Your task to perform on an android device: turn on javascript in the chrome app Image 0: 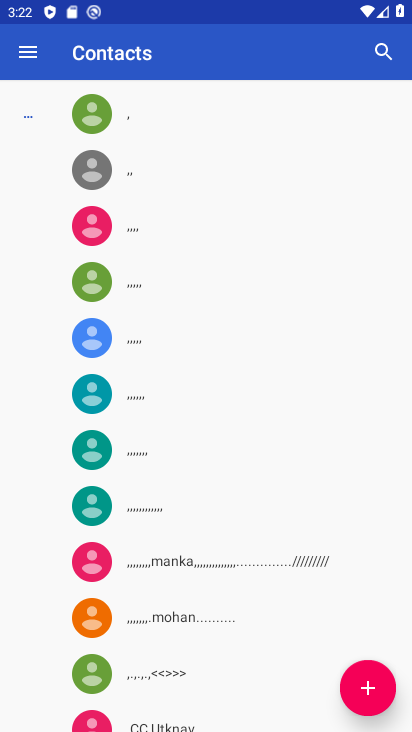
Step 0: press home button
Your task to perform on an android device: turn on javascript in the chrome app Image 1: 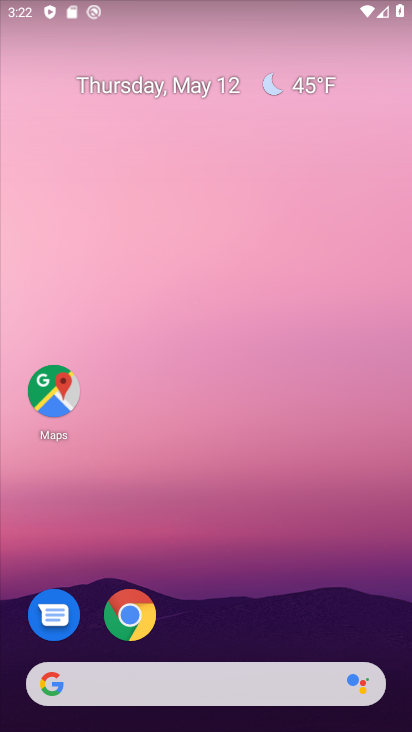
Step 1: click (116, 608)
Your task to perform on an android device: turn on javascript in the chrome app Image 2: 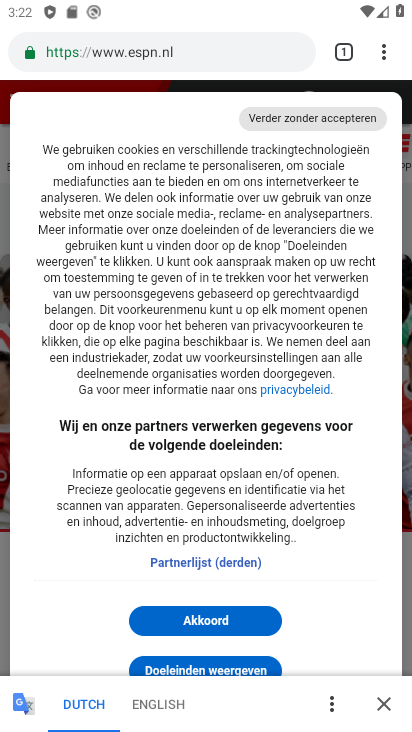
Step 2: click (383, 45)
Your task to perform on an android device: turn on javascript in the chrome app Image 3: 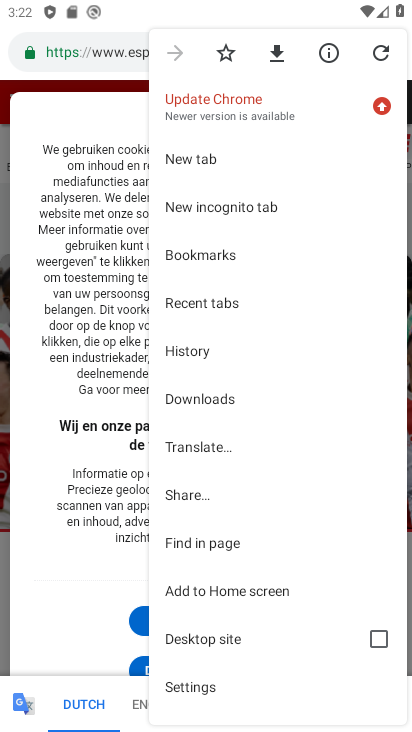
Step 3: click (192, 689)
Your task to perform on an android device: turn on javascript in the chrome app Image 4: 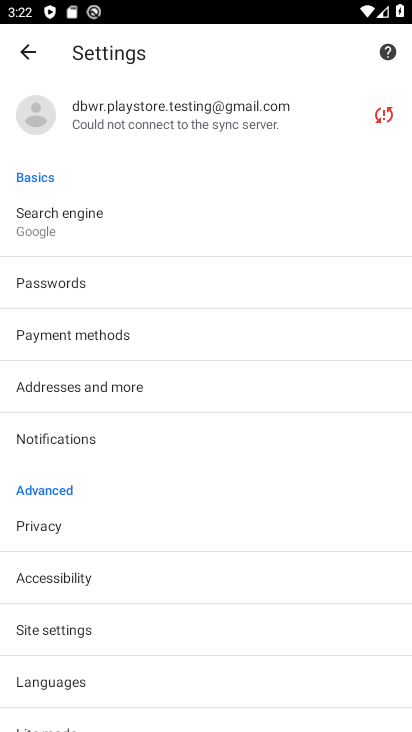
Step 4: drag from (196, 586) to (158, 269)
Your task to perform on an android device: turn on javascript in the chrome app Image 5: 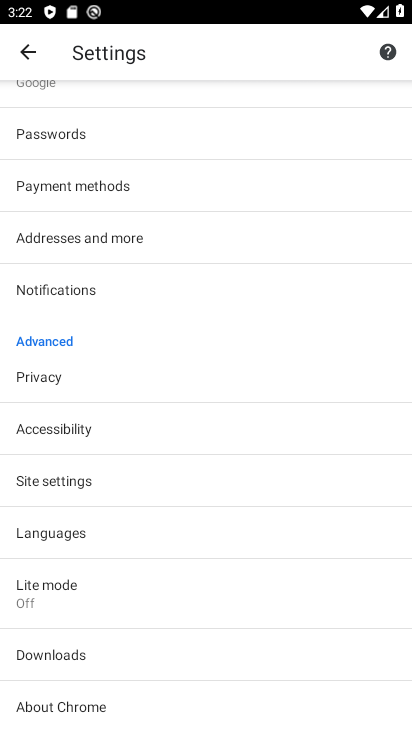
Step 5: click (126, 480)
Your task to perform on an android device: turn on javascript in the chrome app Image 6: 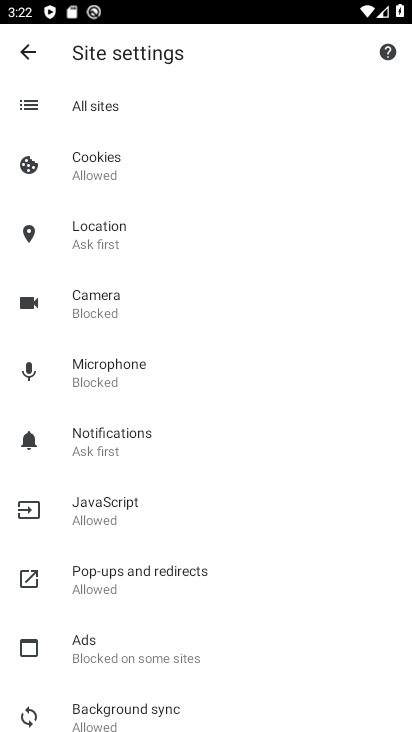
Step 6: click (131, 498)
Your task to perform on an android device: turn on javascript in the chrome app Image 7: 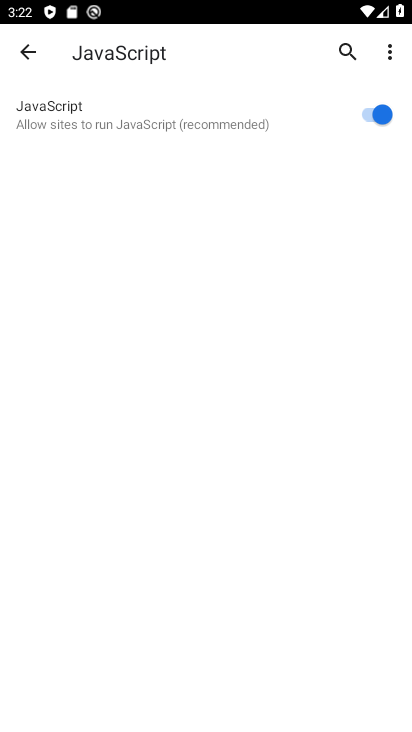
Step 7: task complete